Your task to perform on an android device: show emergency info Image 0: 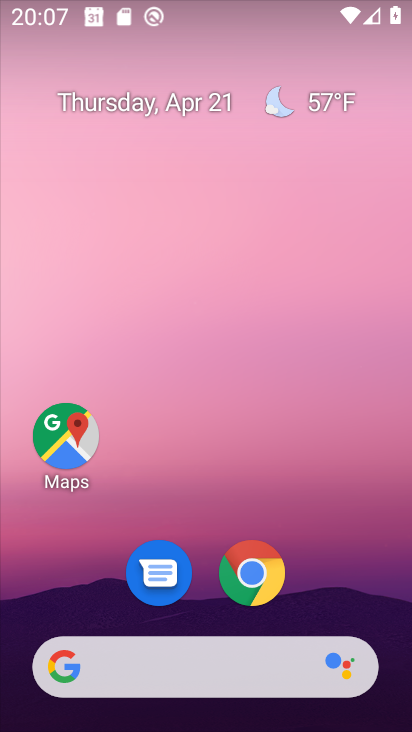
Step 0: drag from (209, 709) to (212, 218)
Your task to perform on an android device: show emergency info Image 1: 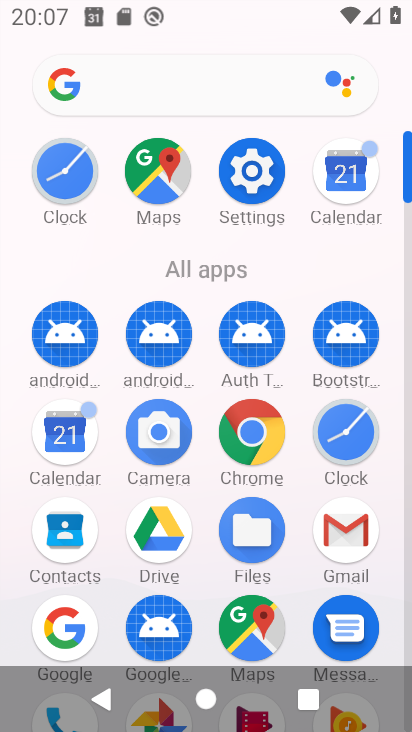
Step 1: click (249, 170)
Your task to perform on an android device: show emergency info Image 2: 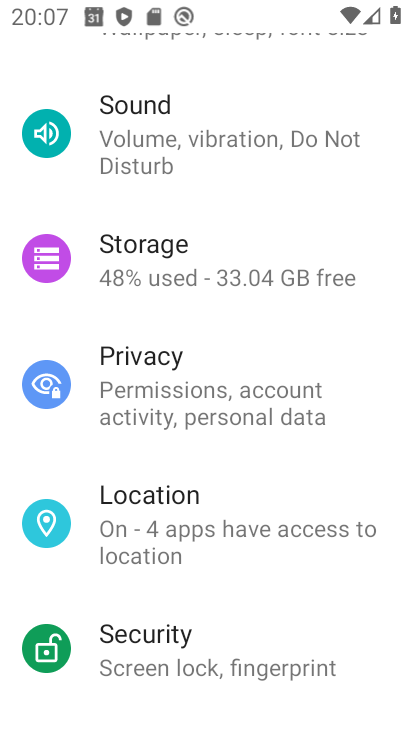
Step 2: drag from (240, 618) to (240, 173)
Your task to perform on an android device: show emergency info Image 3: 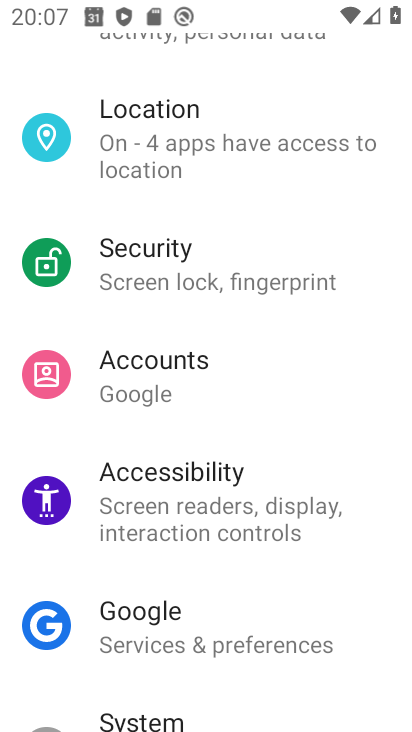
Step 3: drag from (228, 680) to (227, 243)
Your task to perform on an android device: show emergency info Image 4: 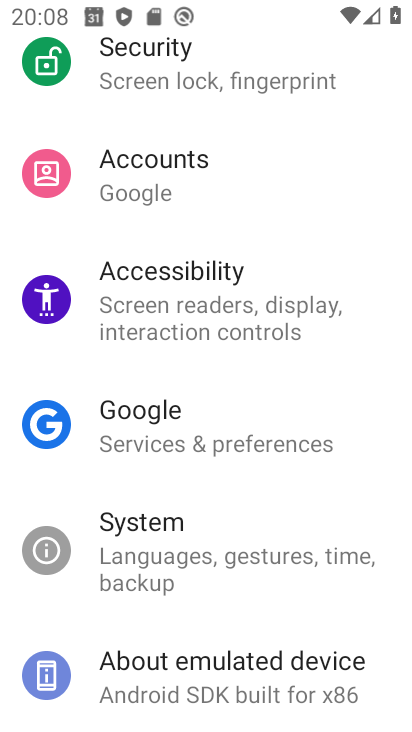
Step 4: drag from (219, 628) to (215, 262)
Your task to perform on an android device: show emergency info Image 5: 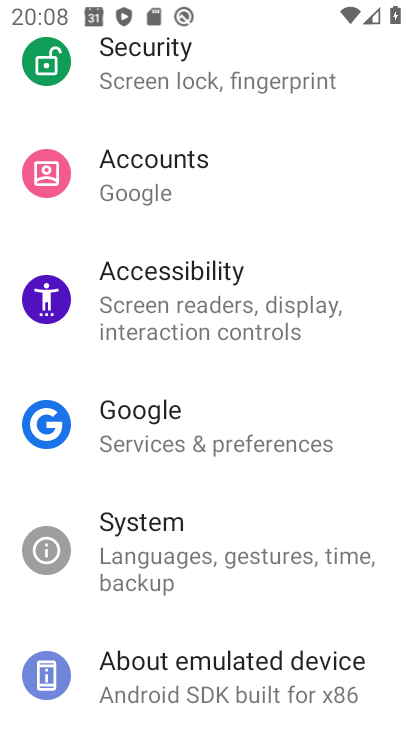
Step 5: click (173, 664)
Your task to perform on an android device: show emergency info Image 6: 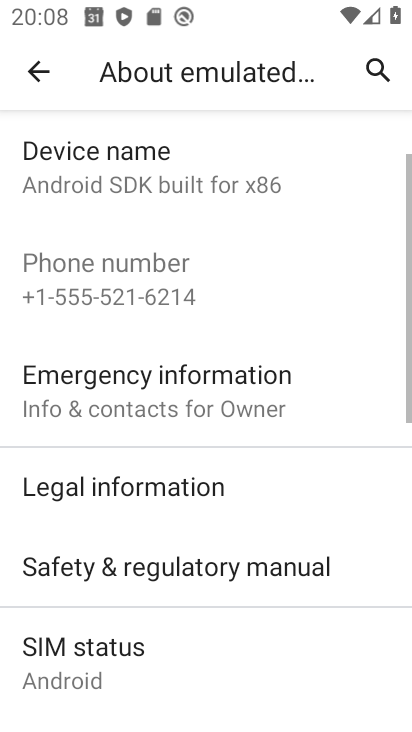
Step 6: click (160, 382)
Your task to perform on an android device: show emergency info Image 7: 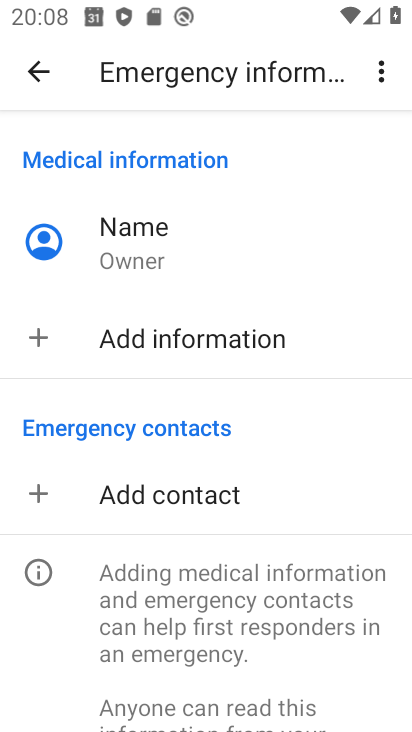
Step 7: task complete